Your task to perform on an android device: toggle notifications settings in the gmail app Image 0: 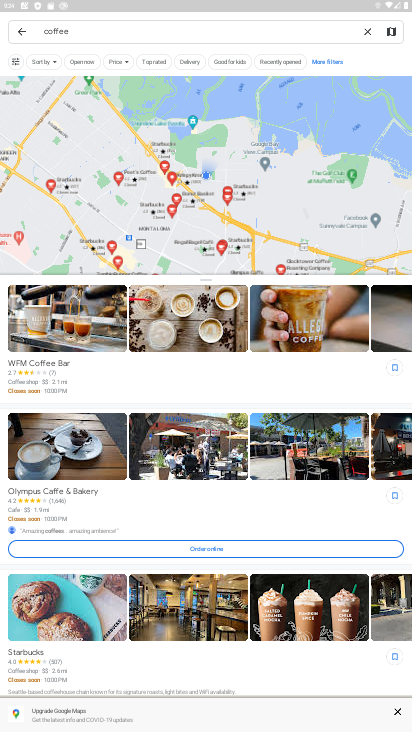
Step 0: press home button
Your task to perform on an android device: toggle notifications settings in the gmail app Image 1: 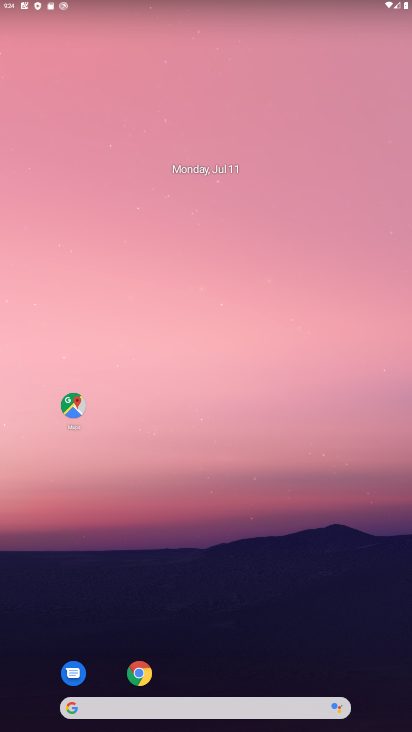
Step 1: drag from (237, 643) to (227, 73)
Your task to perform on an android device: toggle notifications settings in the gmail app Image 2: 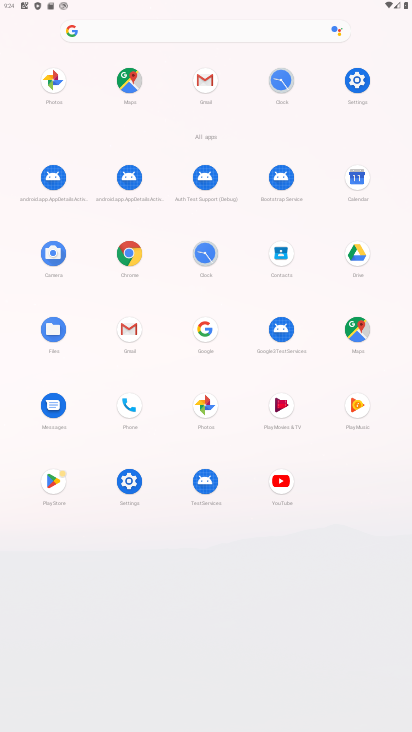
Step 2: click (130, 327)
Your task to perform on an android device: toggle notifications settings in the gmail app Image 3: 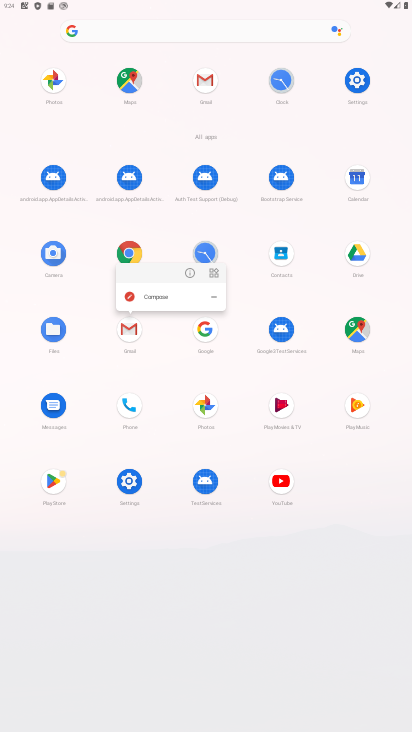
Step 3: click (187, 265)
Your task to perform on an android device: toggle notifications settings in the gmail app Image 4: 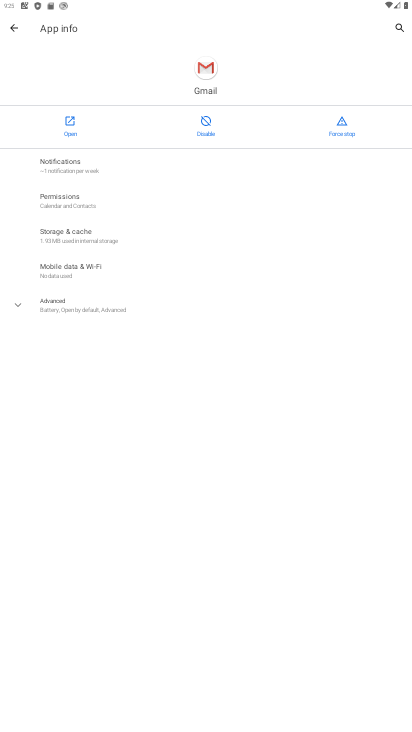
Step 4: click (86, 161)
Your task to perform on an android device: toggle notifications settings in the gmail app Image 5: 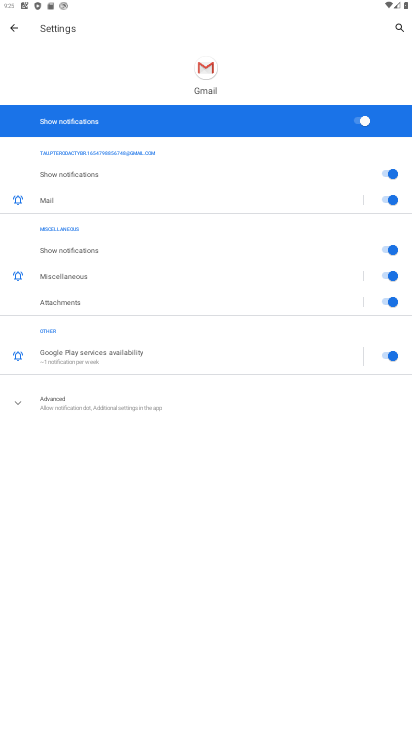
Step 5: click (367, 127)
Your task to perform on an android device: toggle notifications settings in the gmail app Image 6: 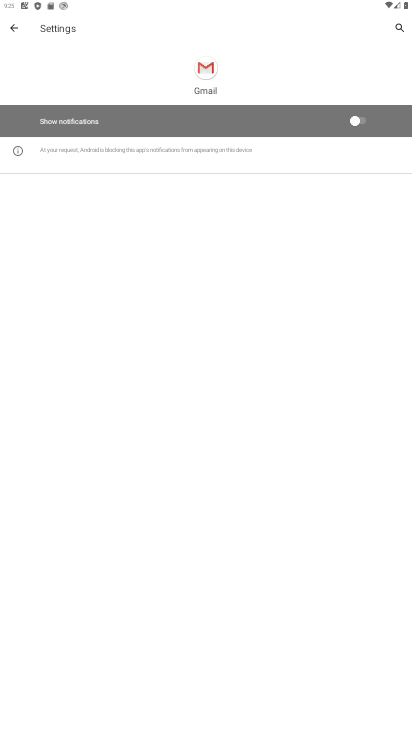
Step 6: task complete